Your task to perform on an android device: open chrome and create a bookmark for the current page Image 0: 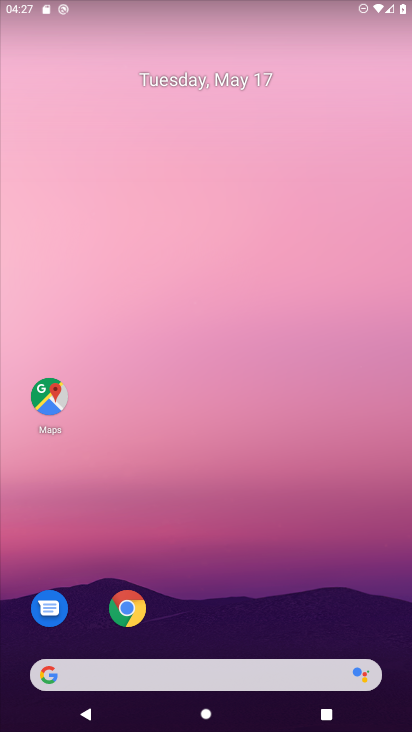
Step 0: click (129, 613)
Your task to perform on an android device: open chrome and create a bookmark for the current page Image 1: 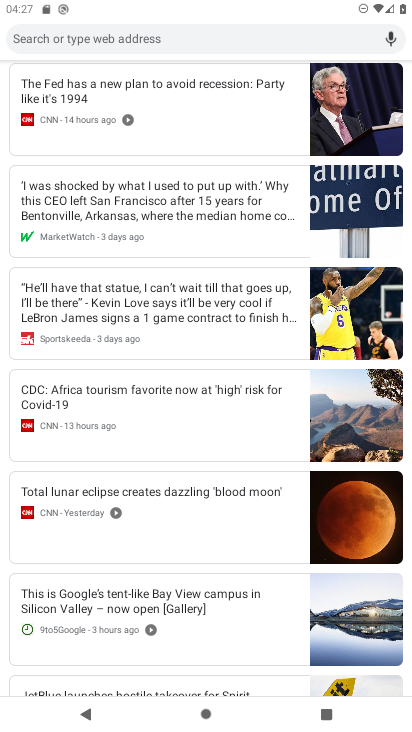
Step 1: drag from (255, 69) to (266, 392)
Your task to perform on an android device: open chrome and create a bookmark for the current page Image 2: 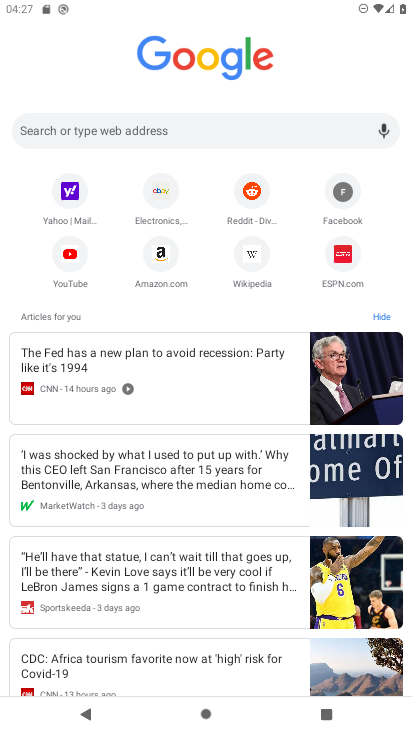
Step 2: drag from (328, 89) to (314, 253)
Your task to perform on an android device: open chrome and create a bookmark for the current page Image 3: 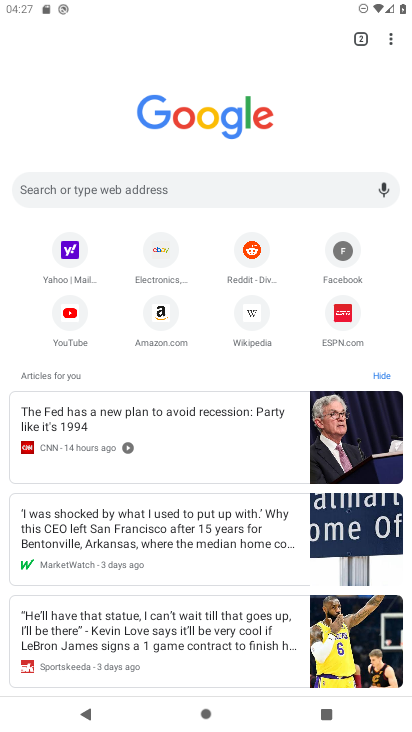
Step 3: click (393, 40)
Your task to perform on an android device: open chrome and create a bookmark for the current page Image 4: 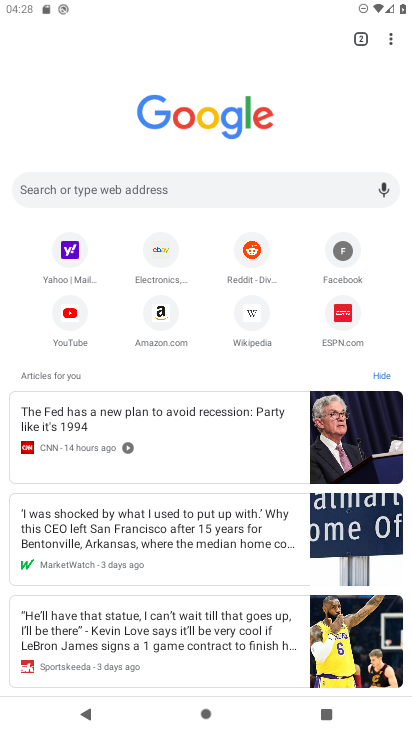
Step 4: click (393, 40)
Your task to perform on an android device: open chrome and create a bookmark for the current page Image 5: 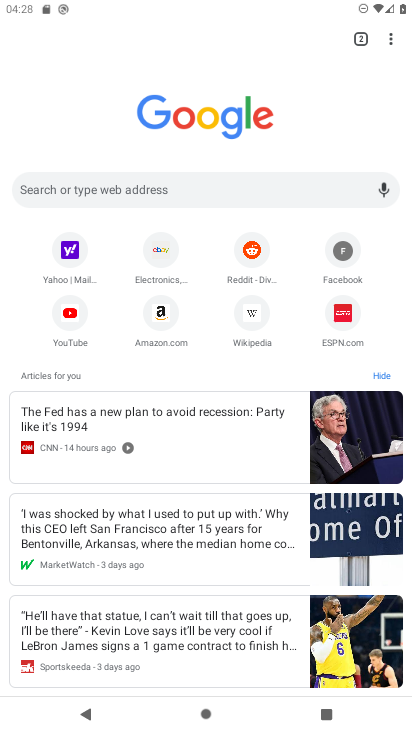
Step 5: click (393, 39)
Your task to perform on an android device: open chrome and create a bookmark for the current page Image 6: 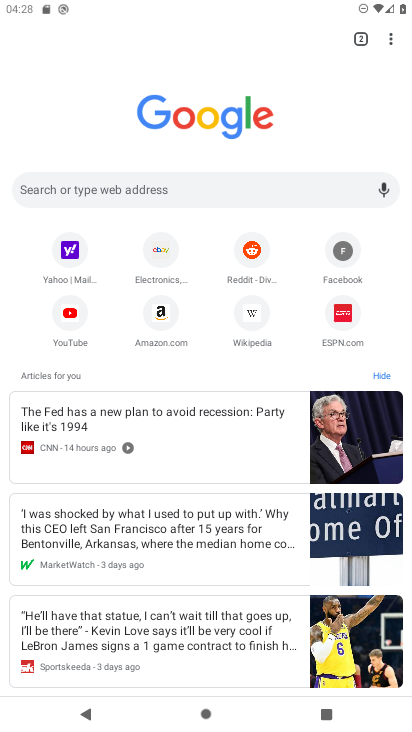
Step 6: click (393, 39)
Your task to perform on an android device: open chrome and create a bookmark for the current page Image 7: 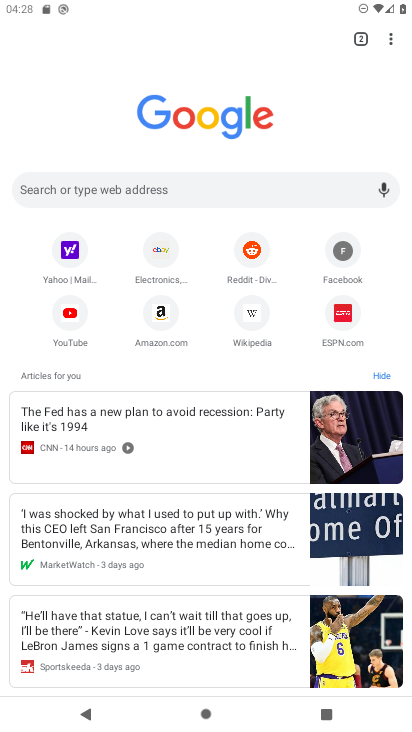
Step 7: click (386, 41)
Your task to perform on an android device: open chrome and create a bookmark for the current page Image 8: 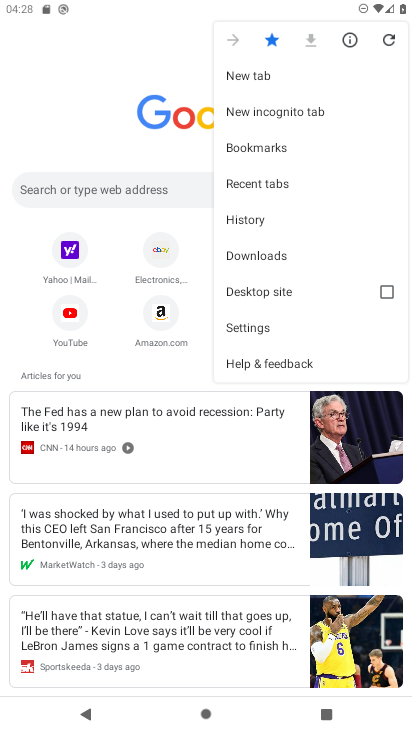
Step 8: click (272, 35)
Your task to perform on an android device: open chrome and create a bookmark for the current page Image 9: 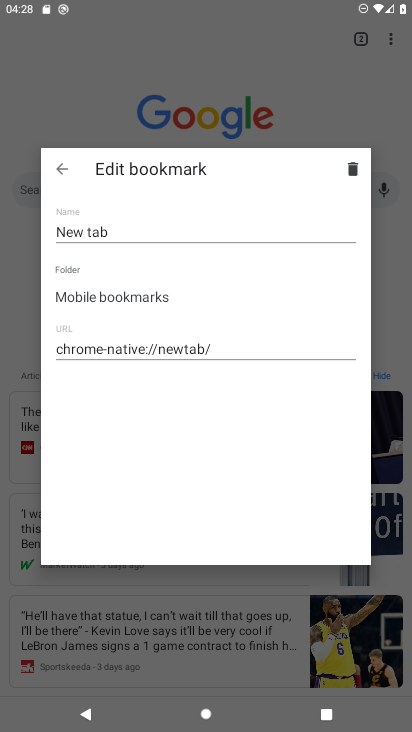
Step 9: task complete